Your task to perform on an android device: Open location settings Image 0: 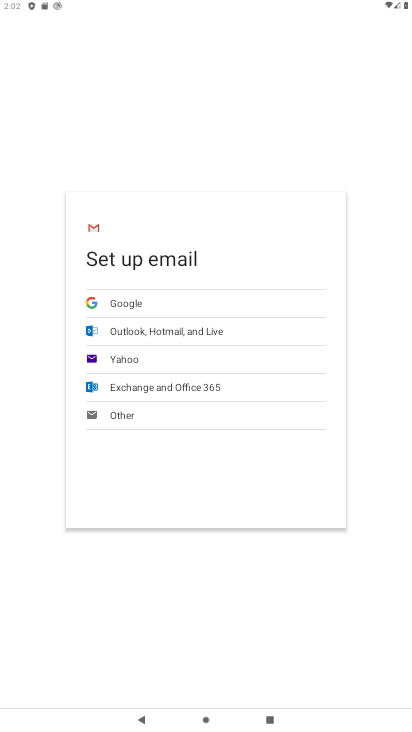
Step 0: press home button
Your task to perform on an android device: Open location settings Image 1: 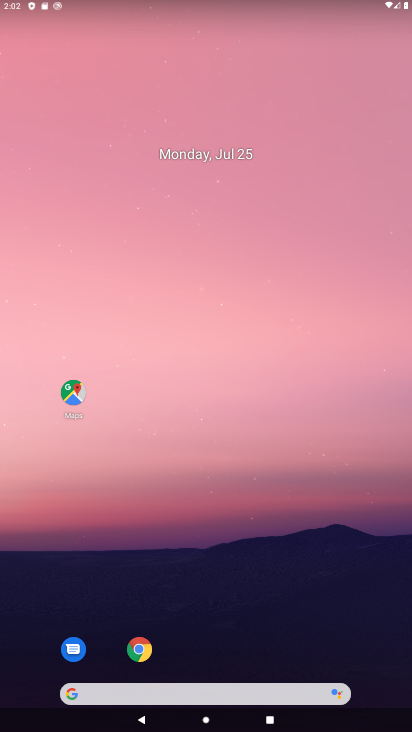
Step 1: drag from (360, 657) to (326, 165)
Your task to perform on an android device: Open location settings Image 2: 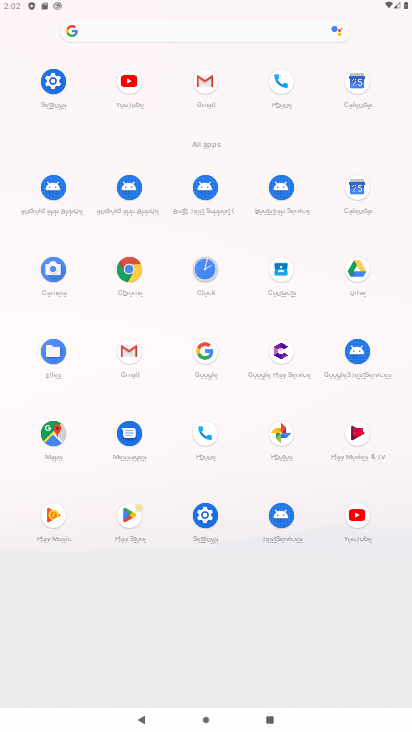
Step 2: click (203, 515)
Your task to perform on an android device: Open location settings Image 3: 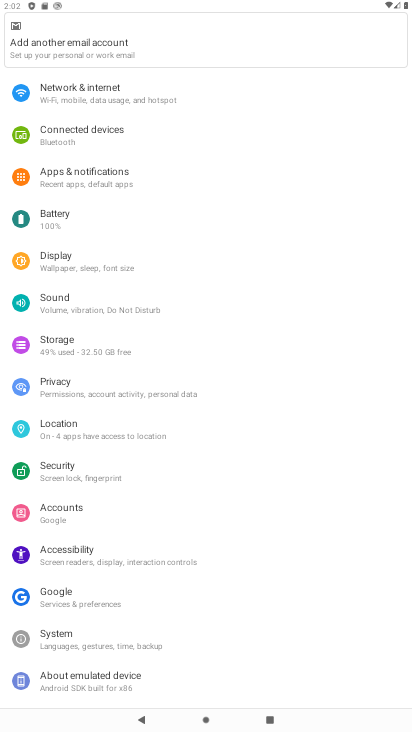
Step 3: click (69, 425)
Your task to perform on an android device: Open location settings Image 4: 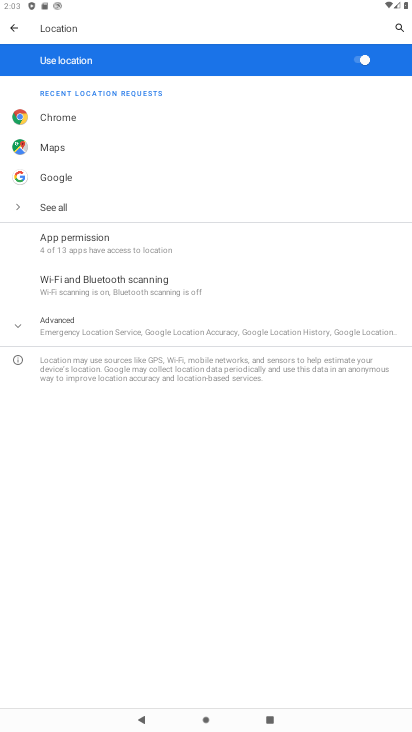
Step 4: click (6, 328)
Your task to perform on an android device: Open location settings Image 5: 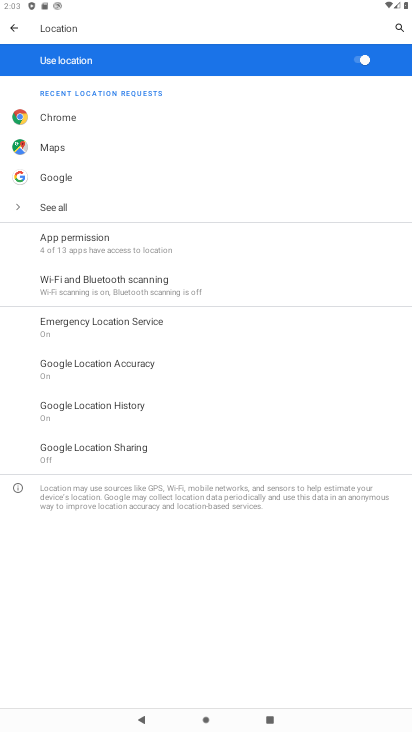
Step 5: task complete